Your task to perform on an android device: Open the map Image 0: 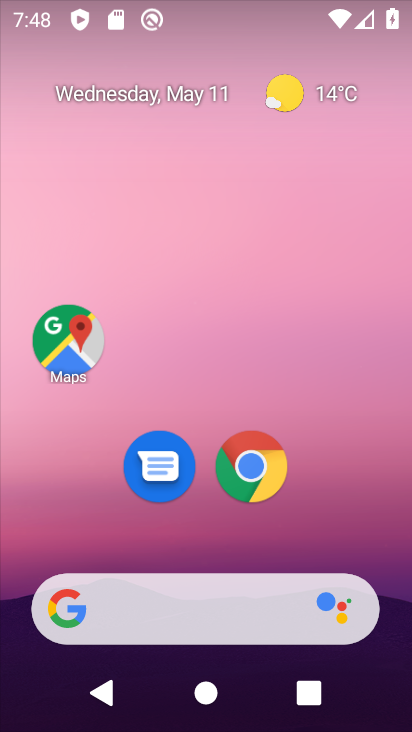
Step 0: drag from (326, 537) to (303, 20)
Your task to perform on an android device: Open the map Image 1: 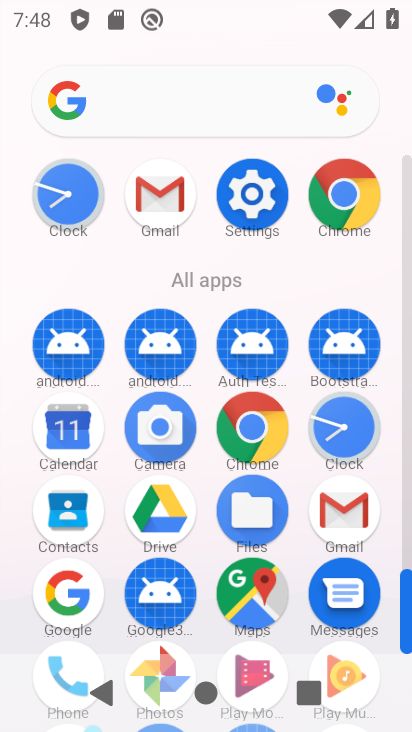
Step 1: click (248, 587)
Your task to perform on an android device: Open the map Image 2: 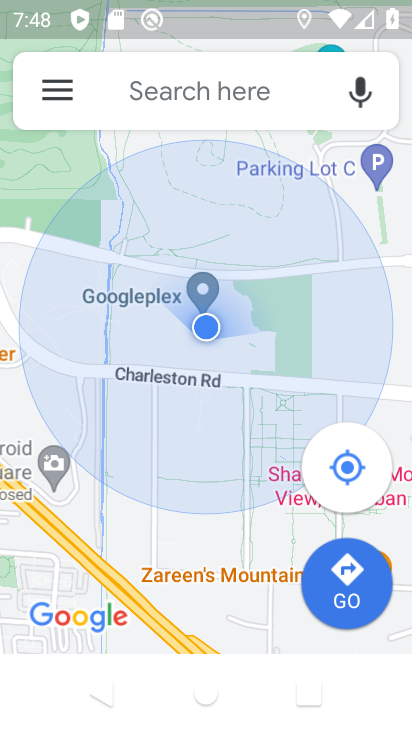
Step 2: task complete